Your task to perform on an android device: Open Google Maps and go to "Timeline" Image 0: 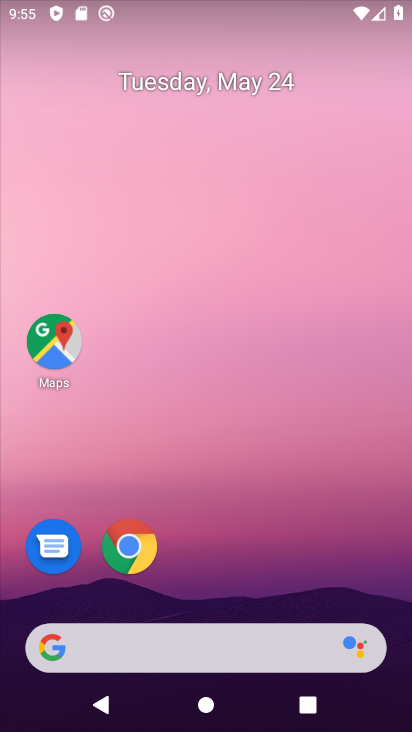
Step 0: click (61, 348)
Your task to perform on an android device: Open Google Maps and go to "Timeline" Image 1: 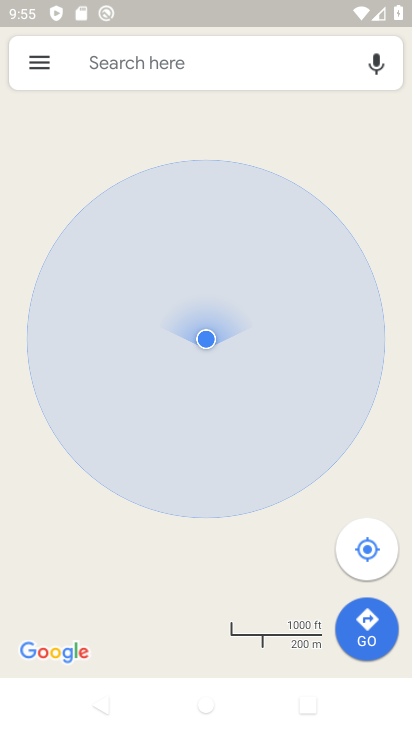
Step 1: click (43, 65)
Your task to perform on an android device: Open Google Maps and go to "Timeline" Image 2: 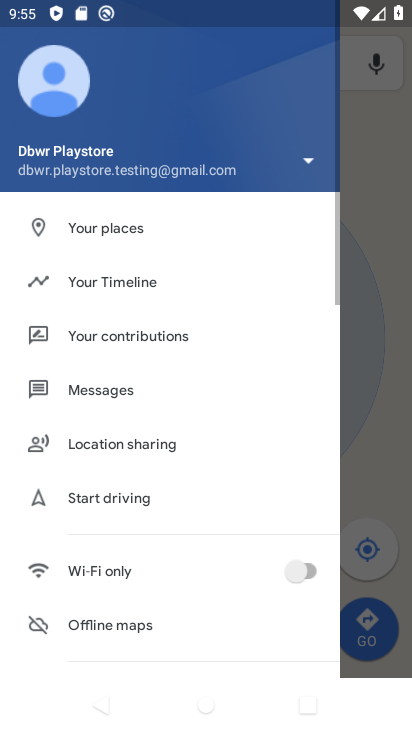
Step 2: drag from (102, 545) to (176, 215)
Your task to perform on an android device: Open Google Maps and go to "Timeline" Image 3: 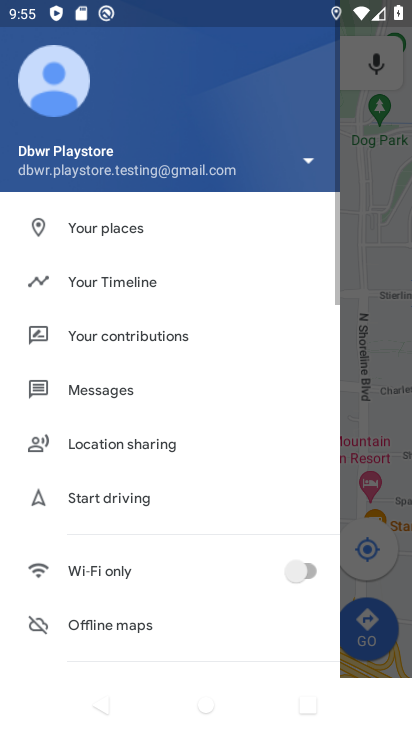
Step 3: click (112, 284)
Your task to perform on an android device: Open Google Maps and go to "Timeline" Image 4: 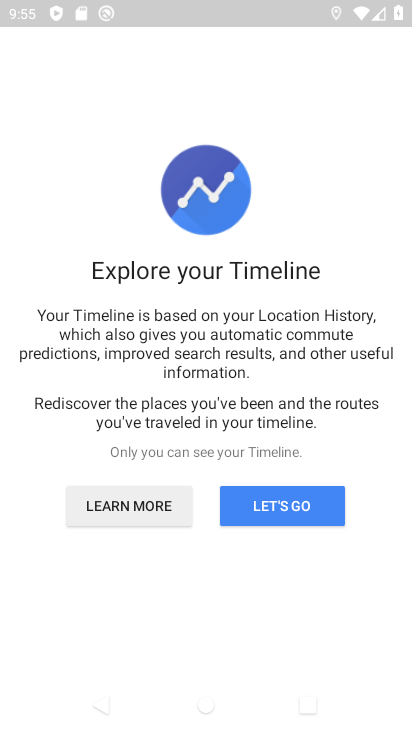
Step 4: click (267, 513)
Your task to perform on an android device: Open Google Maps and go to "Timeline" Image 5: 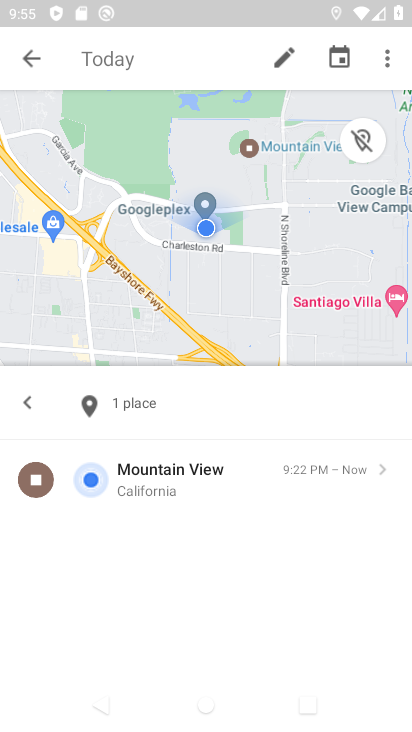
Step 5: task complete